Your task to perform on an android device: Open battery settings Image 0: 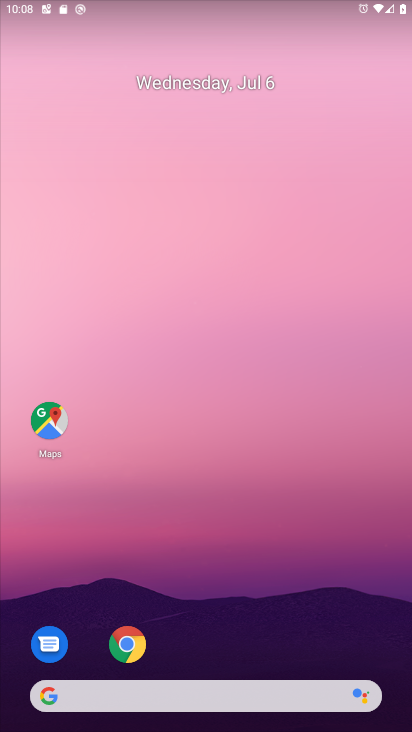
Step 0: drag from (210, 583) to (212, 159)
Your task to perform on an android device: Open battery settings Image 1: 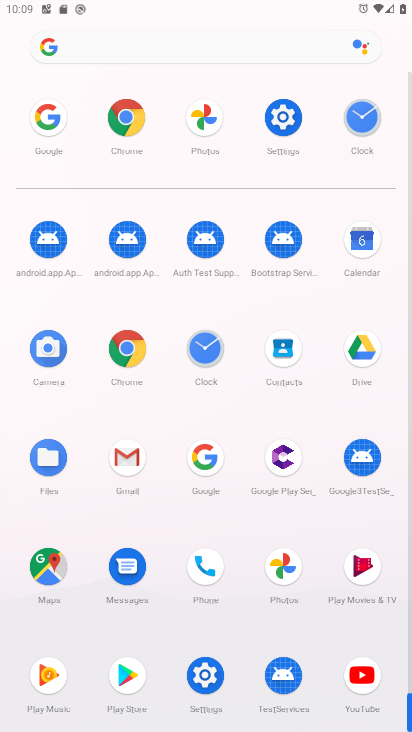
Step 1: click (286, 124)
Your task to perform on an android device: Open battery settings Image 2: 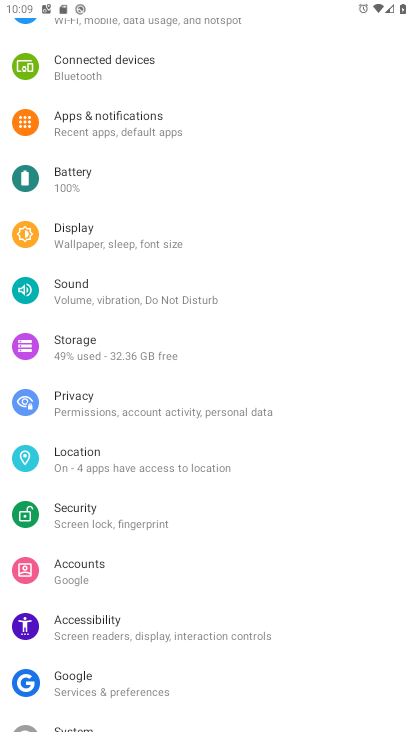
Step 2: drag from (200, 511) to (180, 294)
Your task to perform on an android device: Open battery settings Image 3: 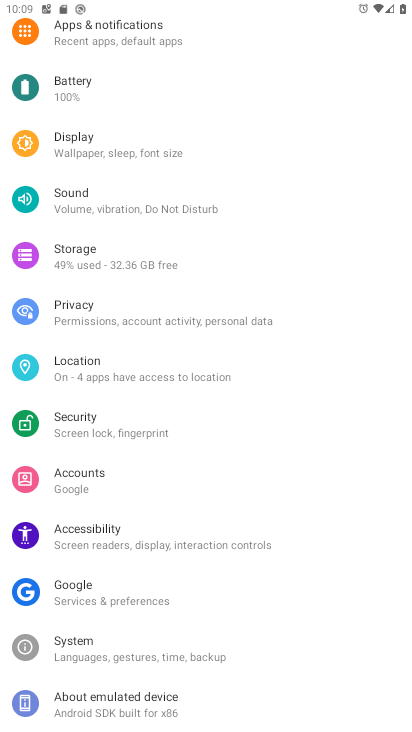
Step 3: click (214, 96)
Your task to perform on an android device: Open battery settings Image 4: 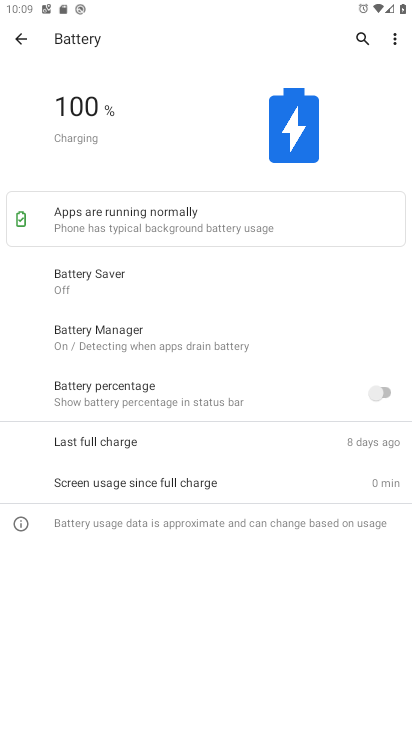
Step 4: task complete